Your task to perform on an android device: See recent photos Image 0: 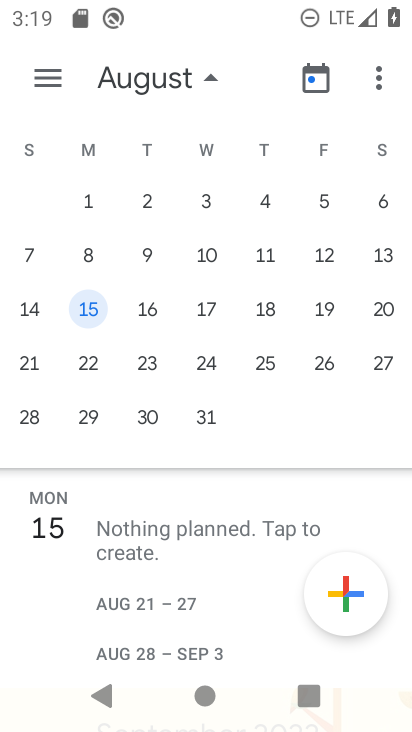
Step 0: press back button
Your task to perform on an android device: See recent photos Image 1: 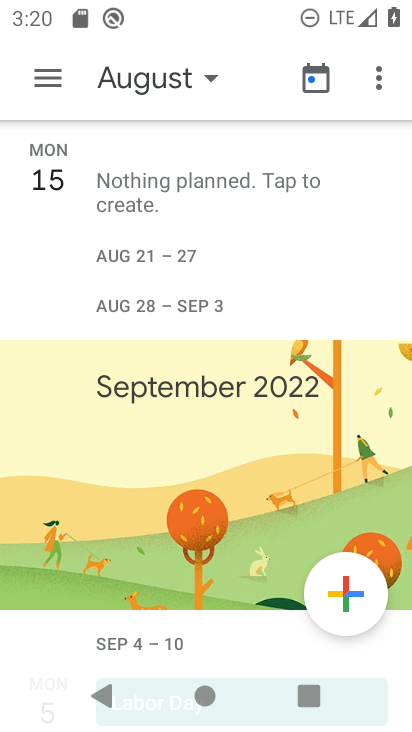
Step 1: press back button
Your task to perform on an android device: See recent photos Image 2: 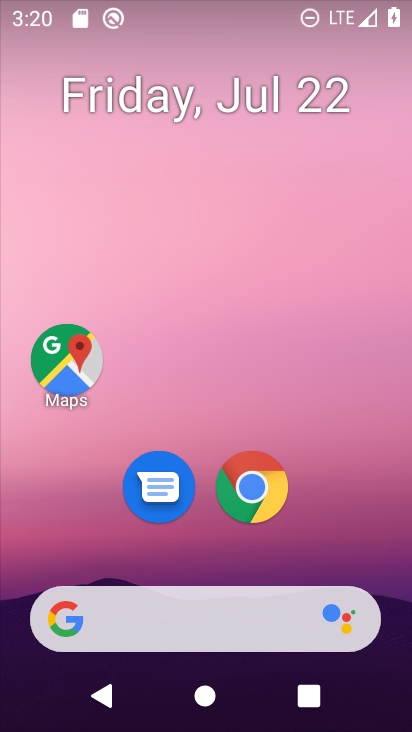
Step 2: drag from (156, 514) to (263, 21)
Your task to perform on an android device: See recent photos Image 3: 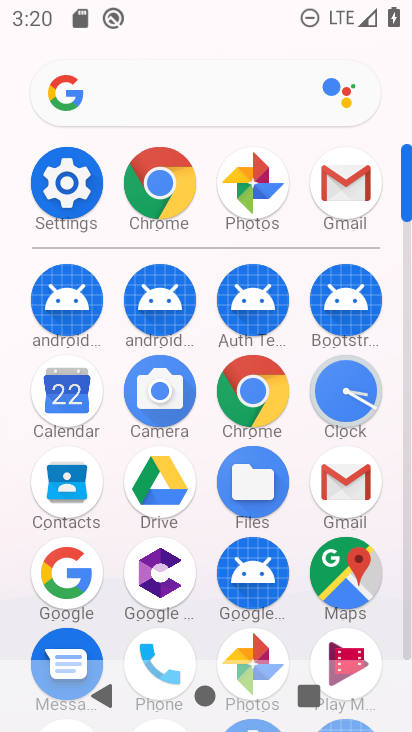
Step 3: click (258, 205)
Your task to perform on an android device: See recent photos Image 4: 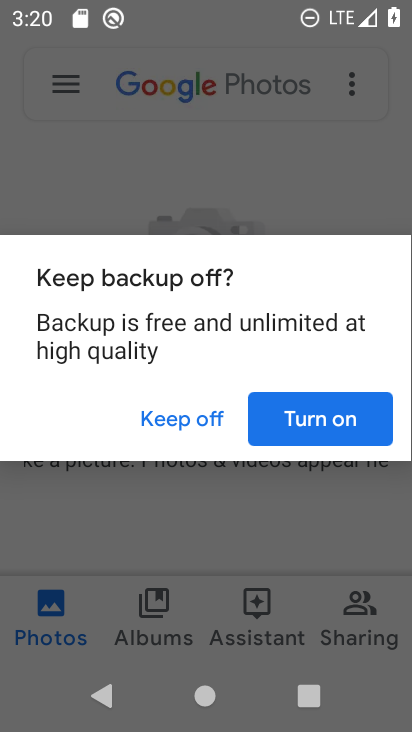
Step 4: click (192, 417)
Your task to perform on an android device: See recent photos Image 5: 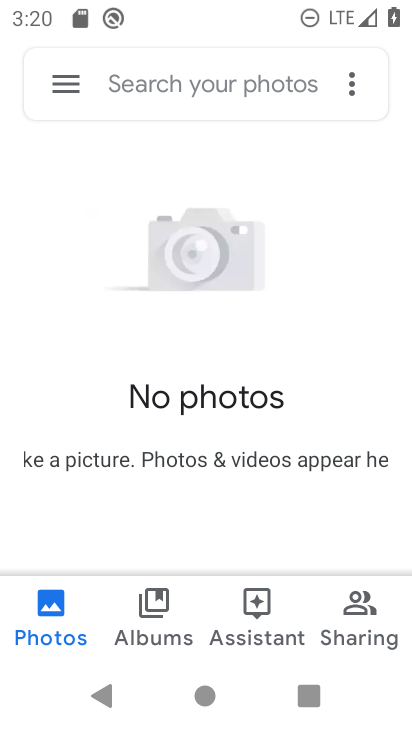
Step 5: task complete